Your task to perform on an android device: turn on improve location accuracy Image 0: 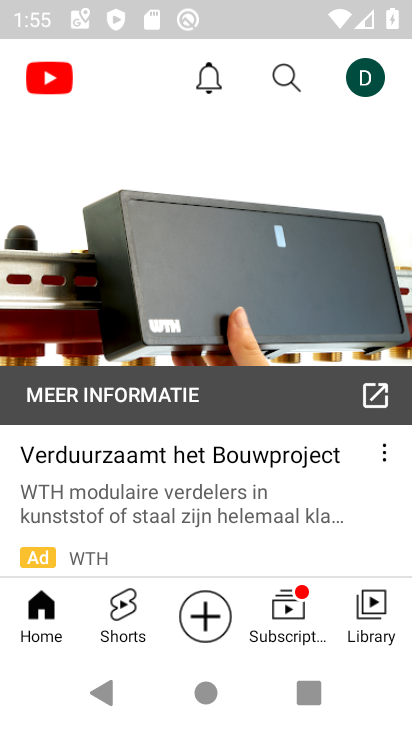
Step 0: press home button
Your task to perform on an android device: turn on improve location accuracy Image 1: 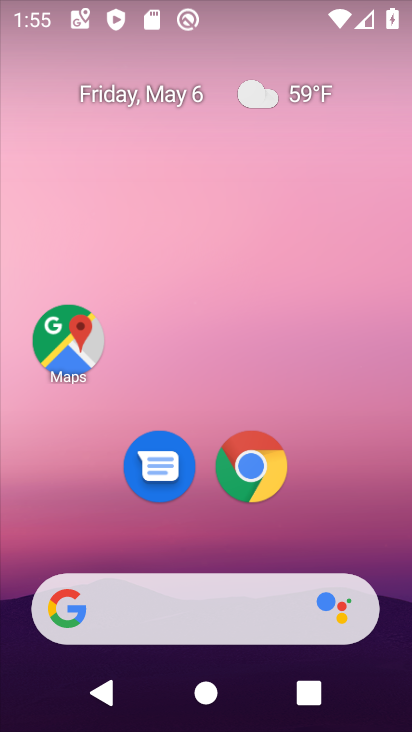
Step 1: drag from (210, 545) to (210, 95)
Your task to perform on an android device: turn on improve location accuracy Image 2: 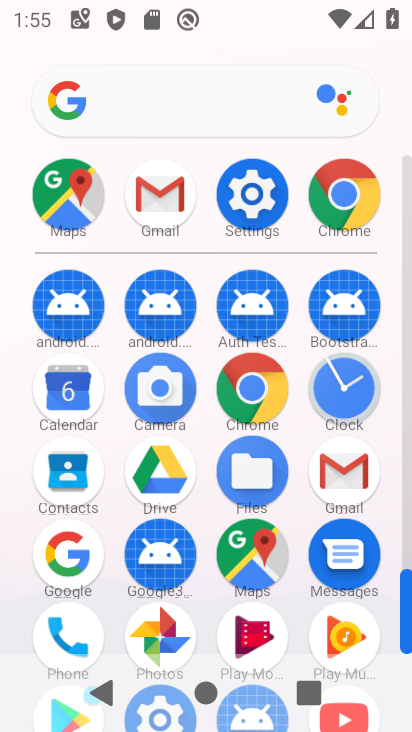
Step 2: click (251, 192)
Your task to perform on an android device: turn on improve location accuracy Image 3: 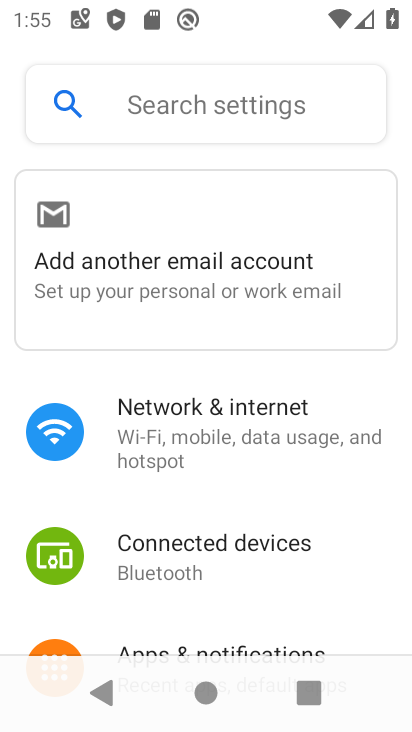
Step 3: drag from (208, 621) to (249, 136)
Your task to perform on an android device: turn on improve location accuracy Image 4: 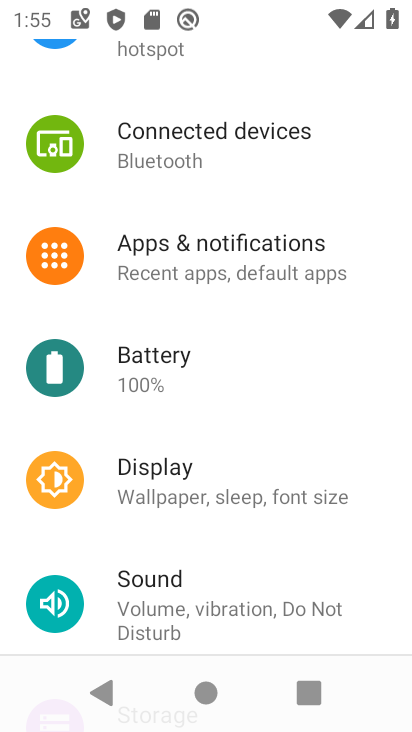
Step 4: drag from (207, 599) to (244, 220)
Your task to perform on an android device: turn on improve location accuracy Image 5: 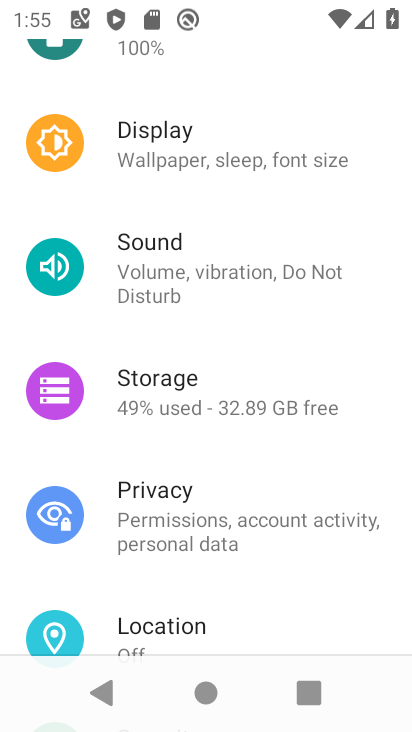
Step 5: click (217, 627)
Your task to perform on an android device: turn on improve location accuracy Image 6: 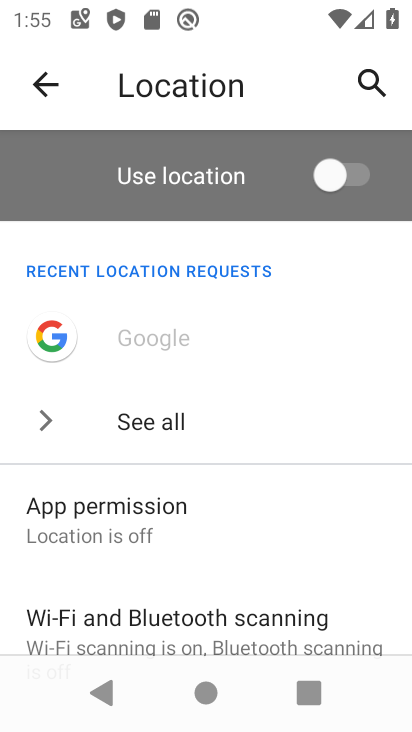
Step 6: drag from (200, 586) to (230, 196)
Your task to perform on an android device: turn on improve location accuracy Image 7: 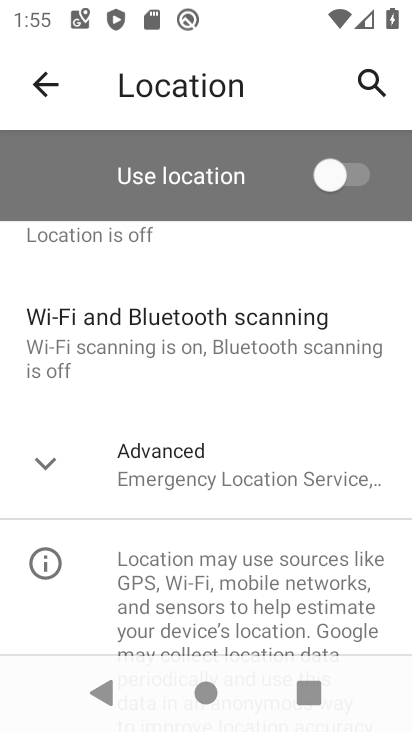
Step 7: click (45, 455)
Your task to perform on an android device: turn on improve location accuracy Image 8: 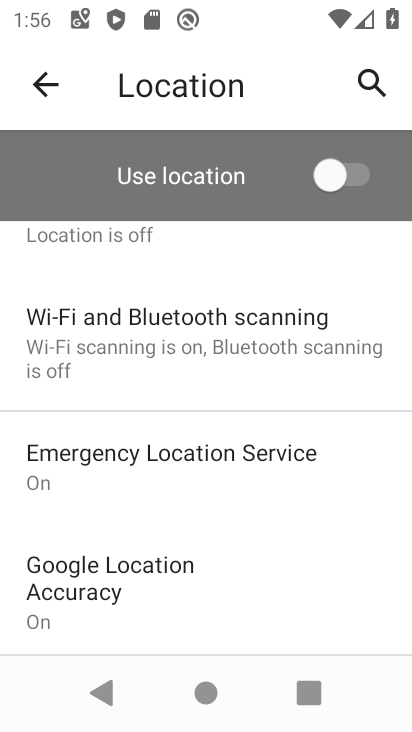
Step 8: drag from (193, 586) to (223, 251)
Your task to perform on an android device: turn on improve location accuracy Image 9: 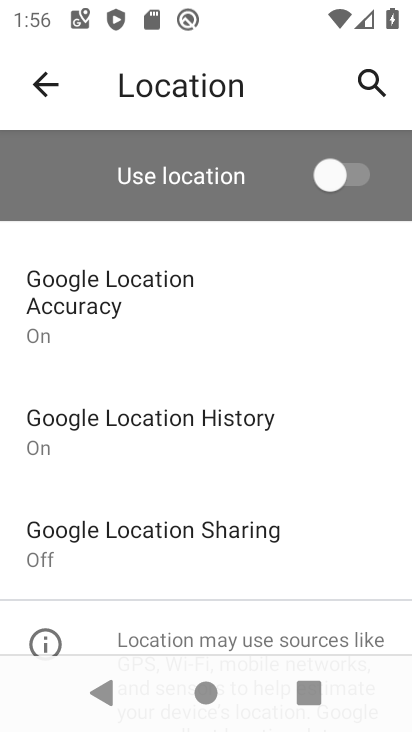
Step 9: click (135, 301)
Your task to perform on an android device: turn on improve location accuracy Image 10: 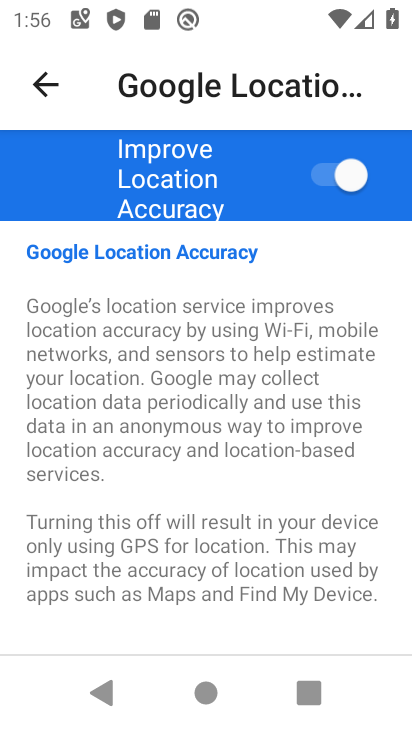
Step 10: task complete